Your task to perform on an android device: turn on notifications settings in the gmail app Image 0: 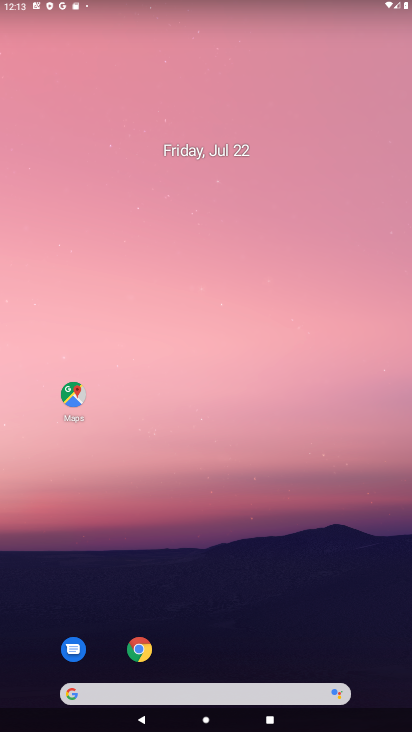
Step 0: drag from (235, 725) to (251, 360)
Your task to perform on an android device: turn on notifications settings in the gmail app Image 1: 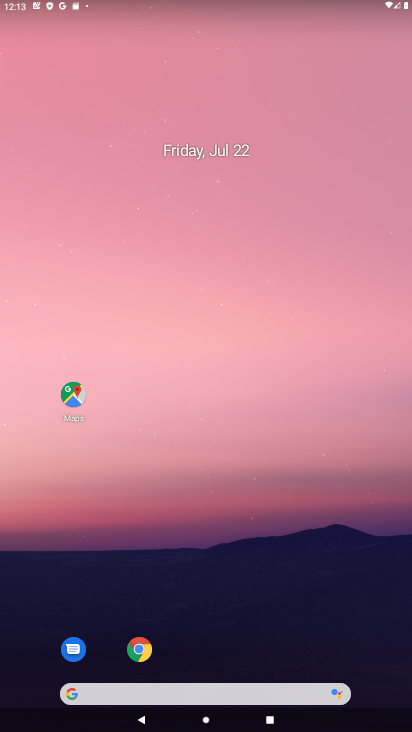
Step 1: drag from (229, 726) to (246, 214)
Your task to perform on an android device: turn on notifications settings in the gmail app Image 2: 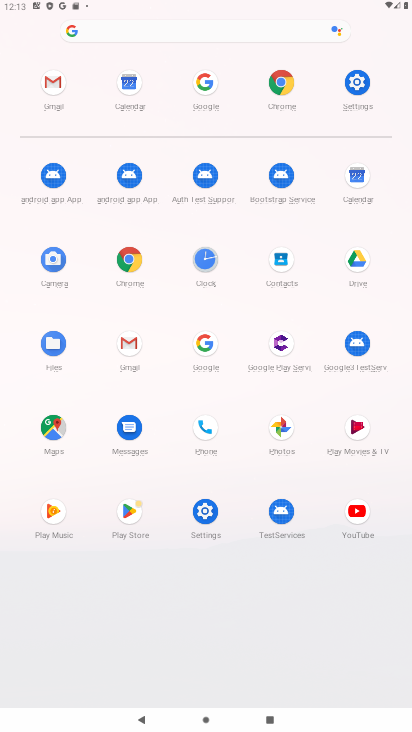
Step 2: click (127, 346)
Your task to perform on an android device: turn on notifications settings in the gmail app Image 3: 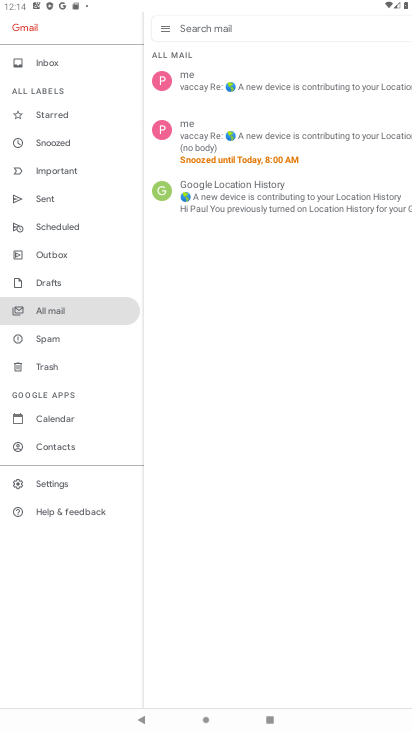
Step 3: click (52, 482)
Your task to perform on an android device: turn on notifications settings in the gmail app Image 4: 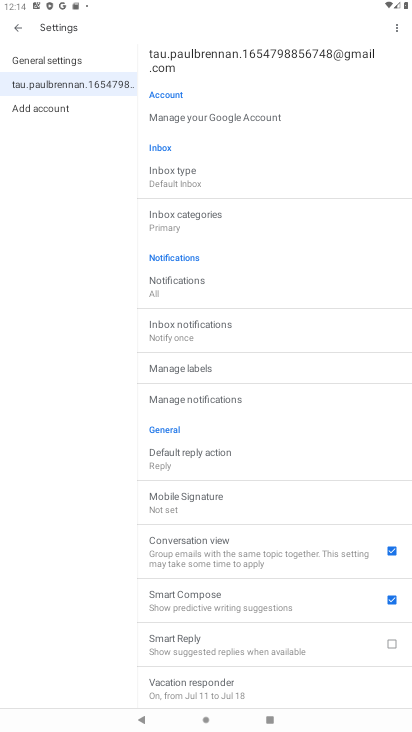
Step 4: task complete